Your task to perform on an android device: install app "Pluto TV - Live TV and Movies" Image 0: 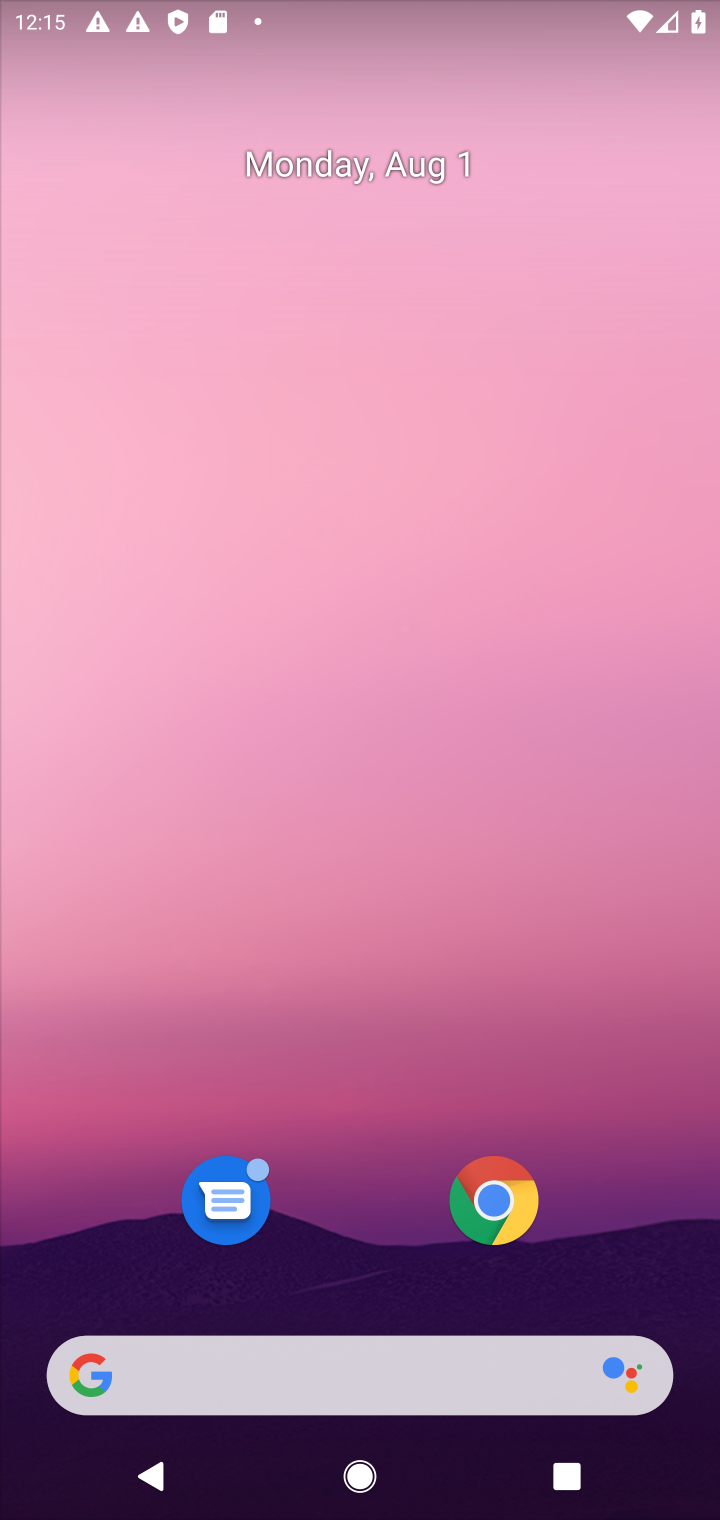
Step 0: drag from (363, 267) to (371, 43)
Your task to perform on an android device: install app "Pluto TV - Live TV and Movies" Image 1: 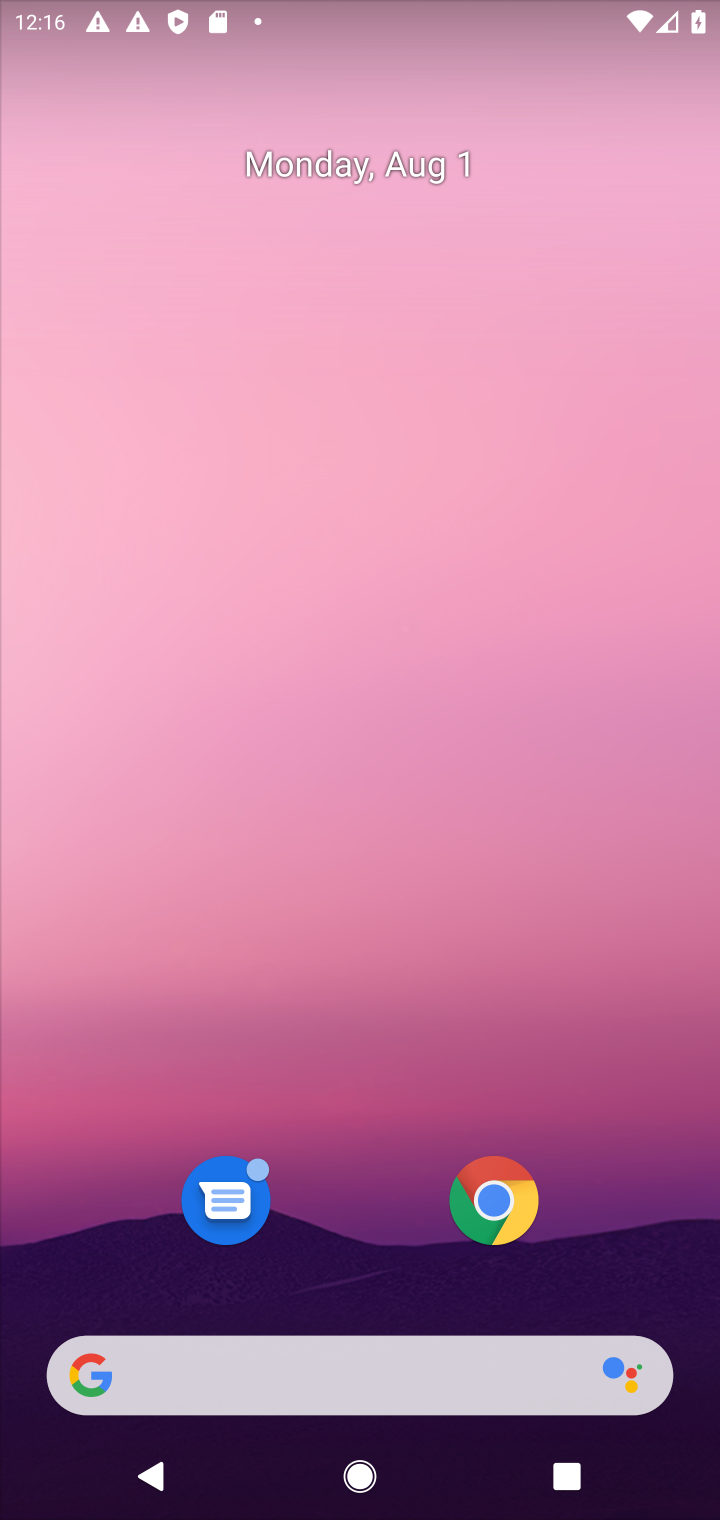
Step 1: drag from (625, 1306) to (384, 23)
Your task to perform on an android device: install app "Pluto TV - Live TV and Movies" Image 2: 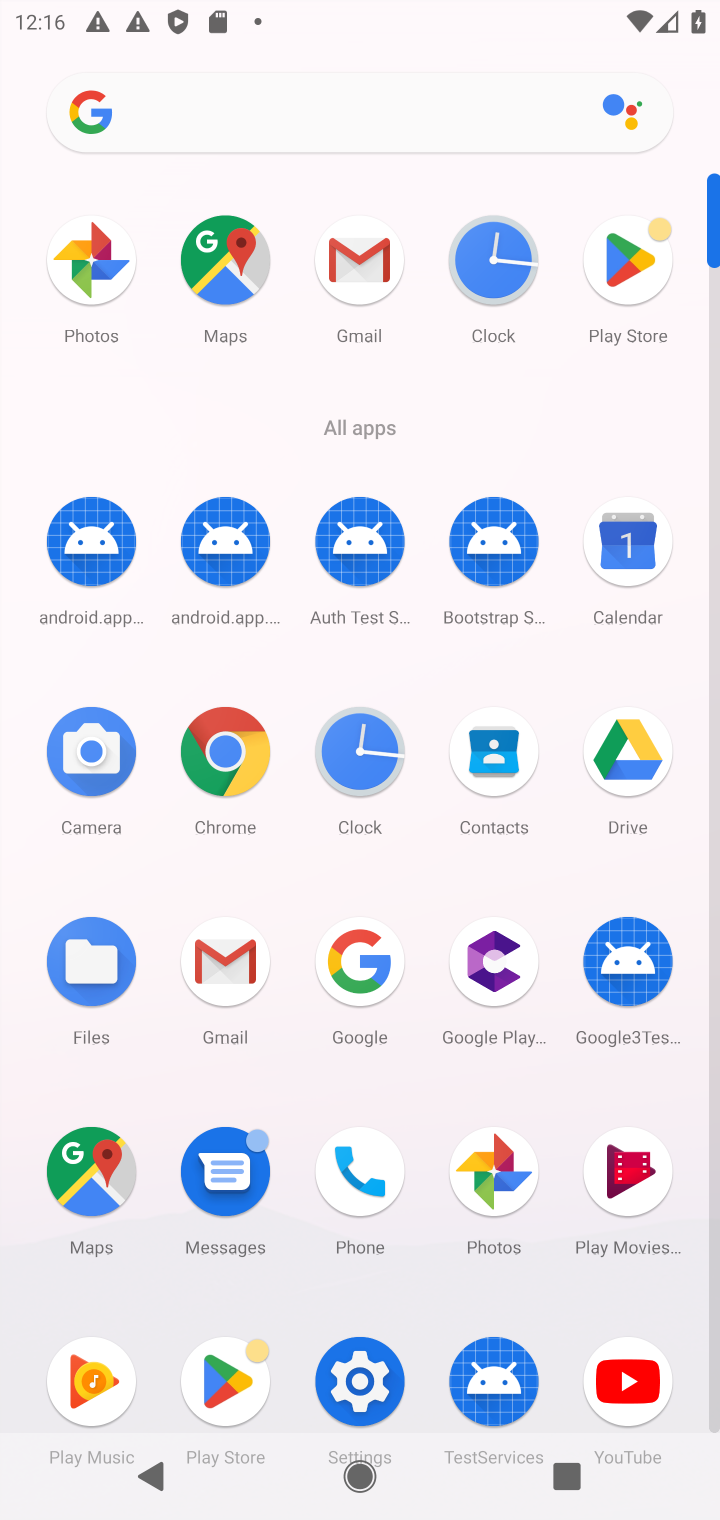
Step 2: click (225, 1391)
Your task to perform on an android device: install app "Pluto TV - Live TV and Movies" Image 3: 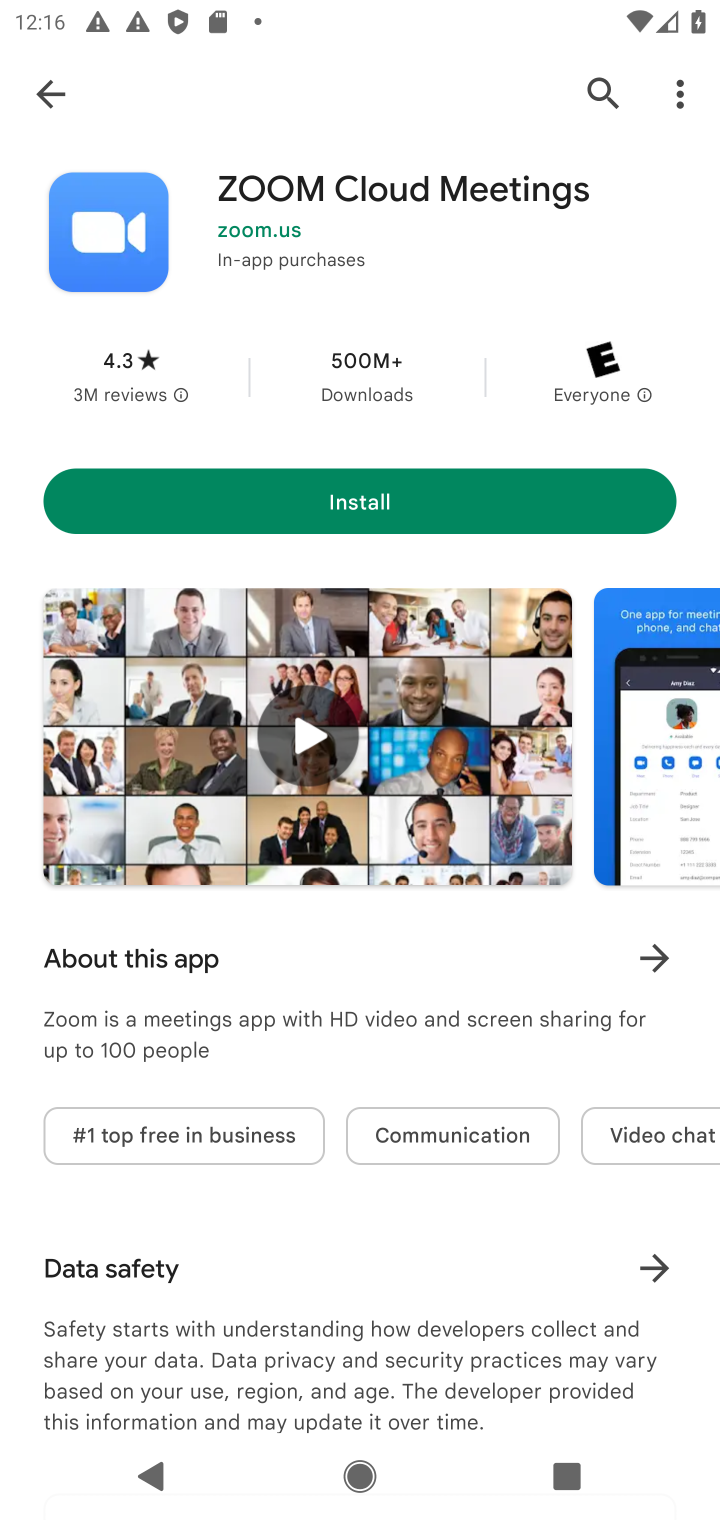
Step 3: click (599, 91)
Your task to perform on an android device: install app "Pluto TV - Live TV and Movies" Image 4: 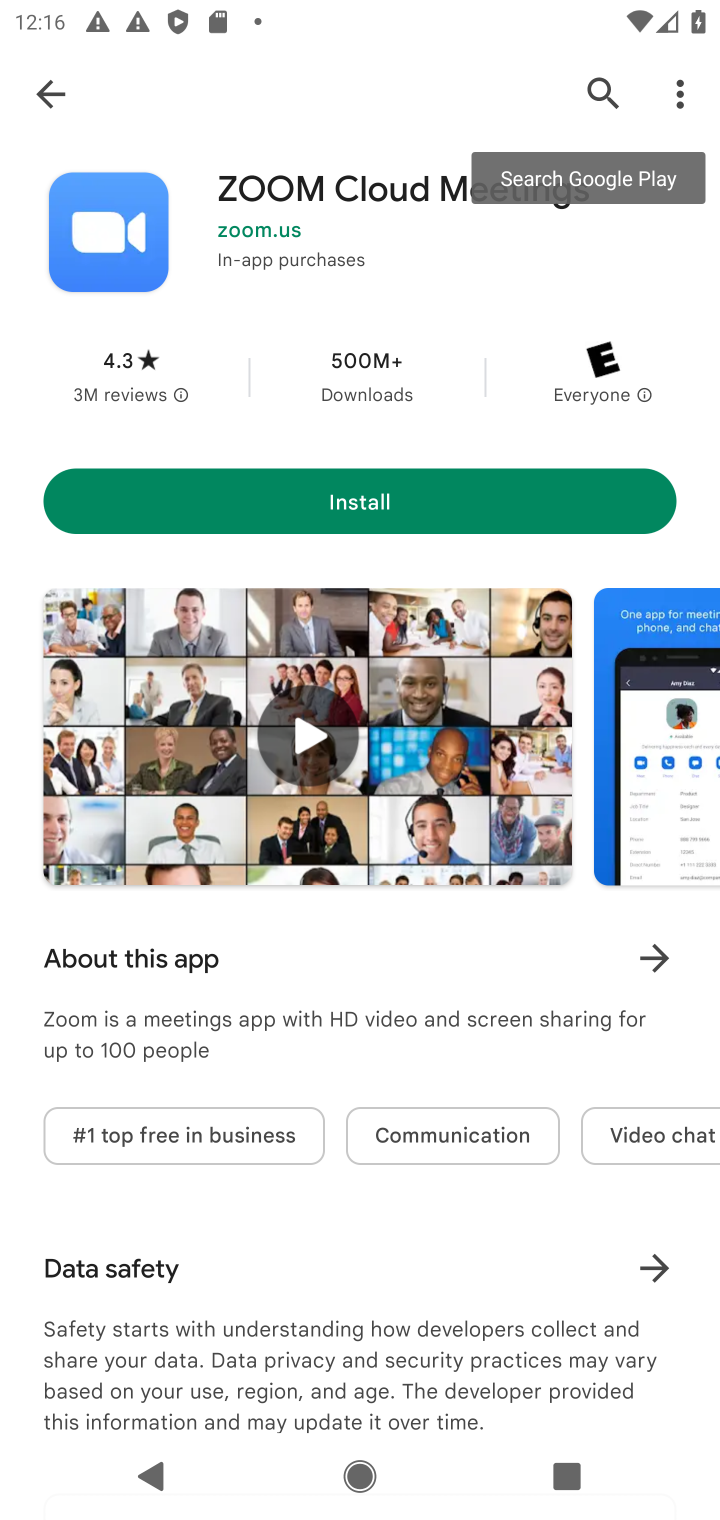
Step 4: click (585, 108)
Your task to perform on an android device: install app "Pluto TV - Live TV and Movies" Image 5: 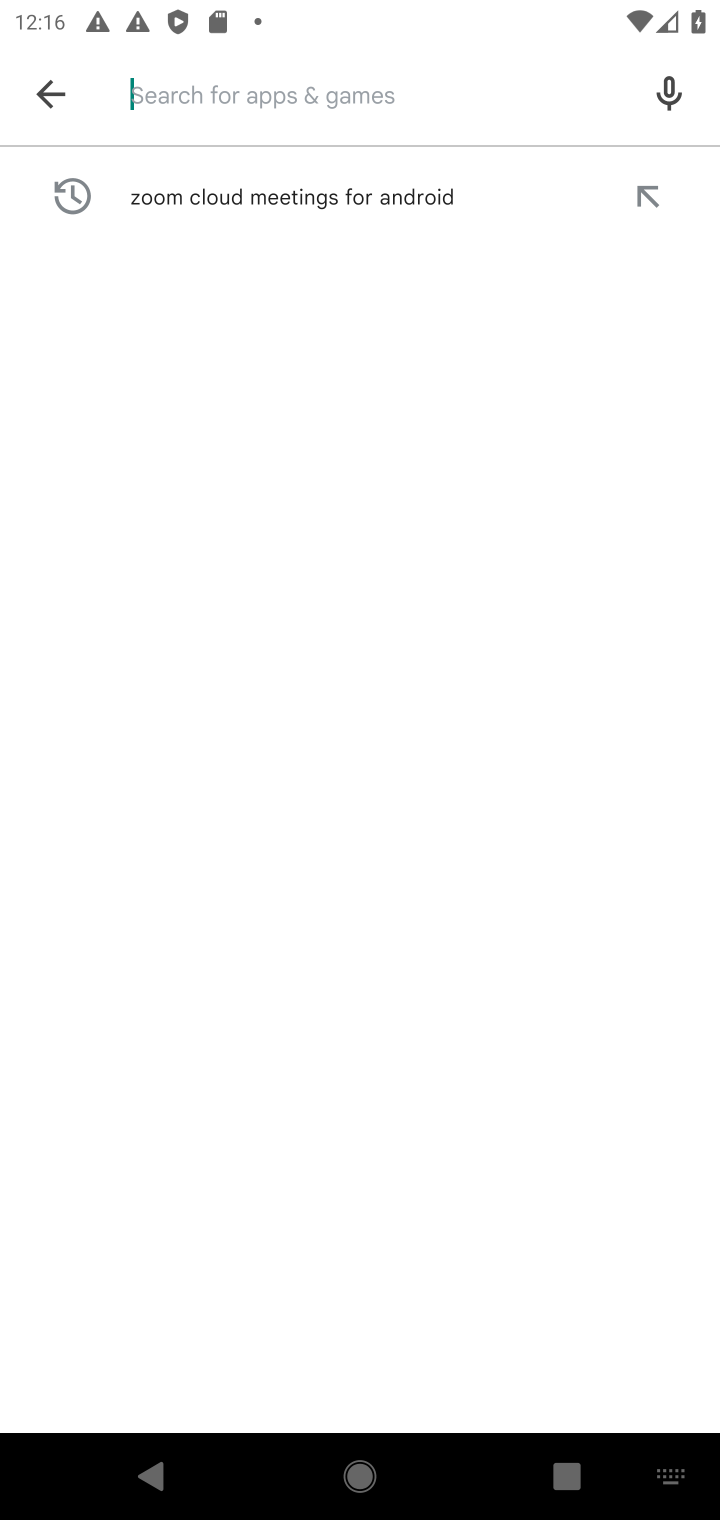
Step 5: type "pluto tv - live and movies"
Your task to perform on an android device: install app "Pluto TV - Live TV and Movies" Image 6: 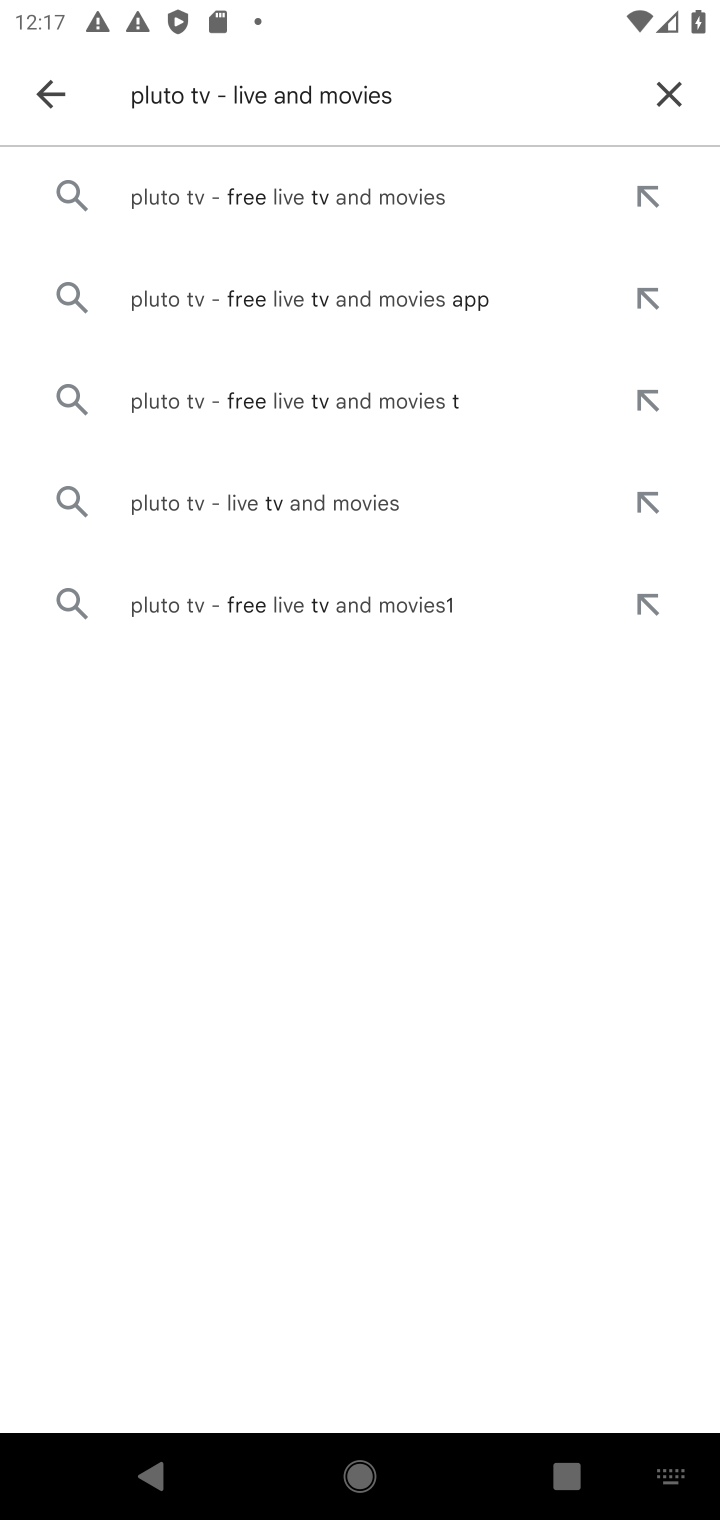
Step 6: click (413, 494)
Your task to perform on an android device: install app "Pluto TV - Live TV and Movies" Image 7: 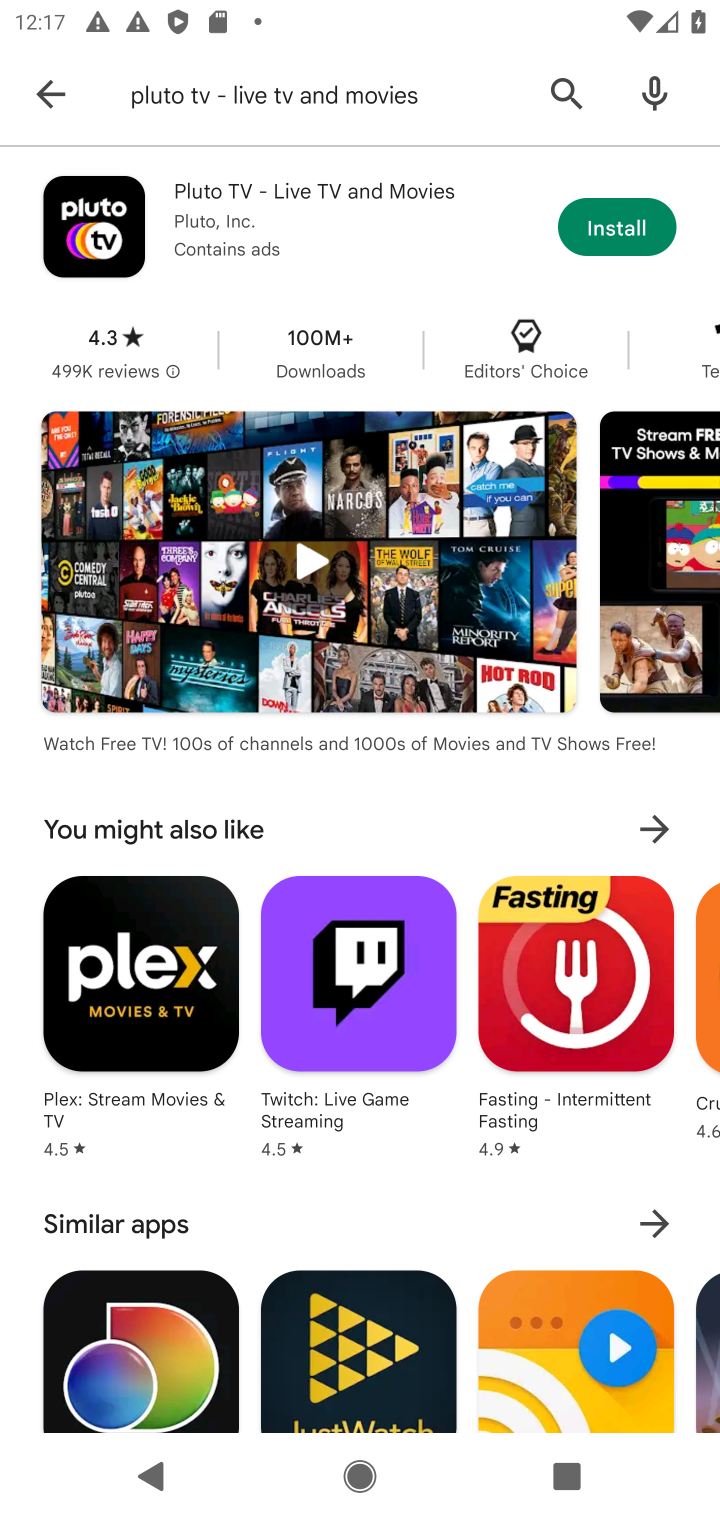
Step 7: click (210, 174)
Your task to perform on an android device: install app "Pluto TV - Live TV and Movies" Image 8: 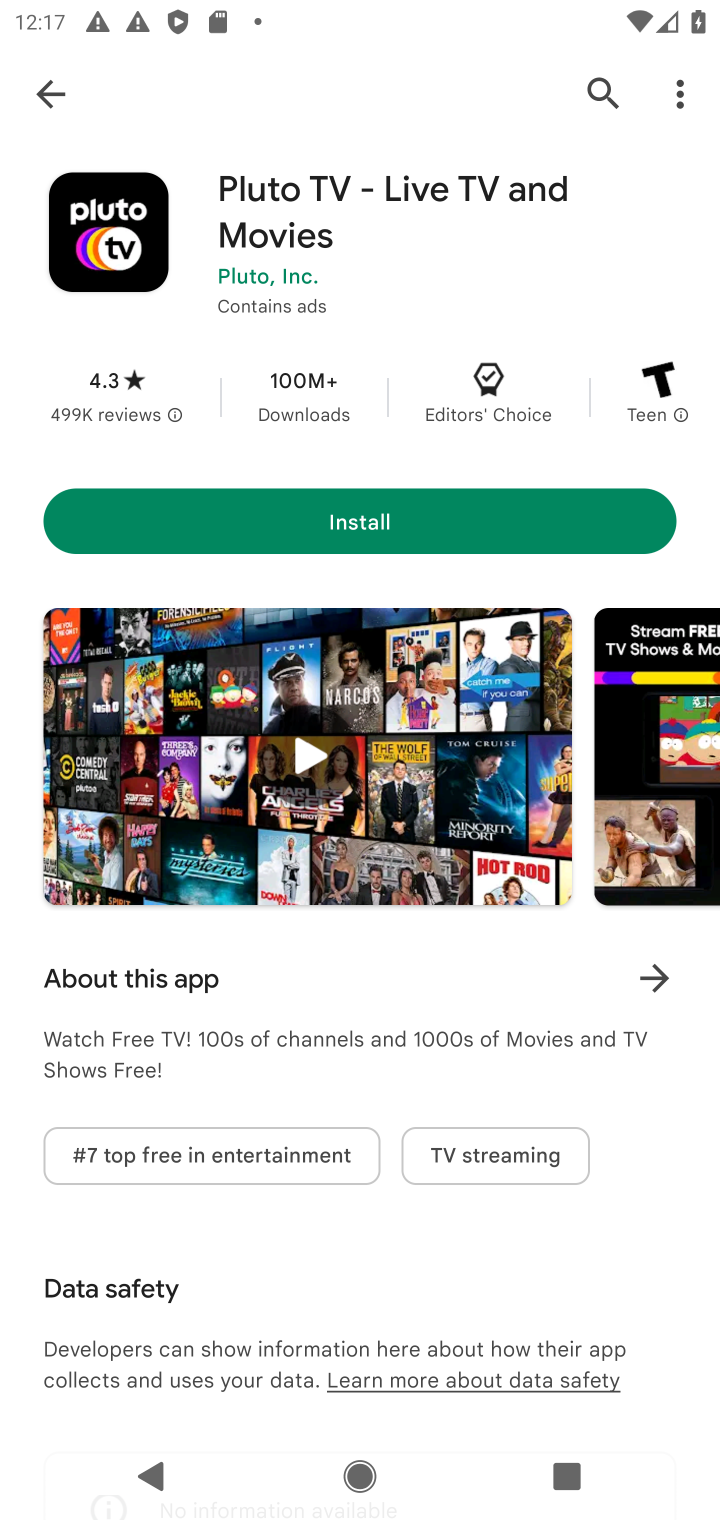
Step 8: click (276, 501)
Your task to perform on an android device: install app "Pluto TV - Live TV and Movies" Image 9: 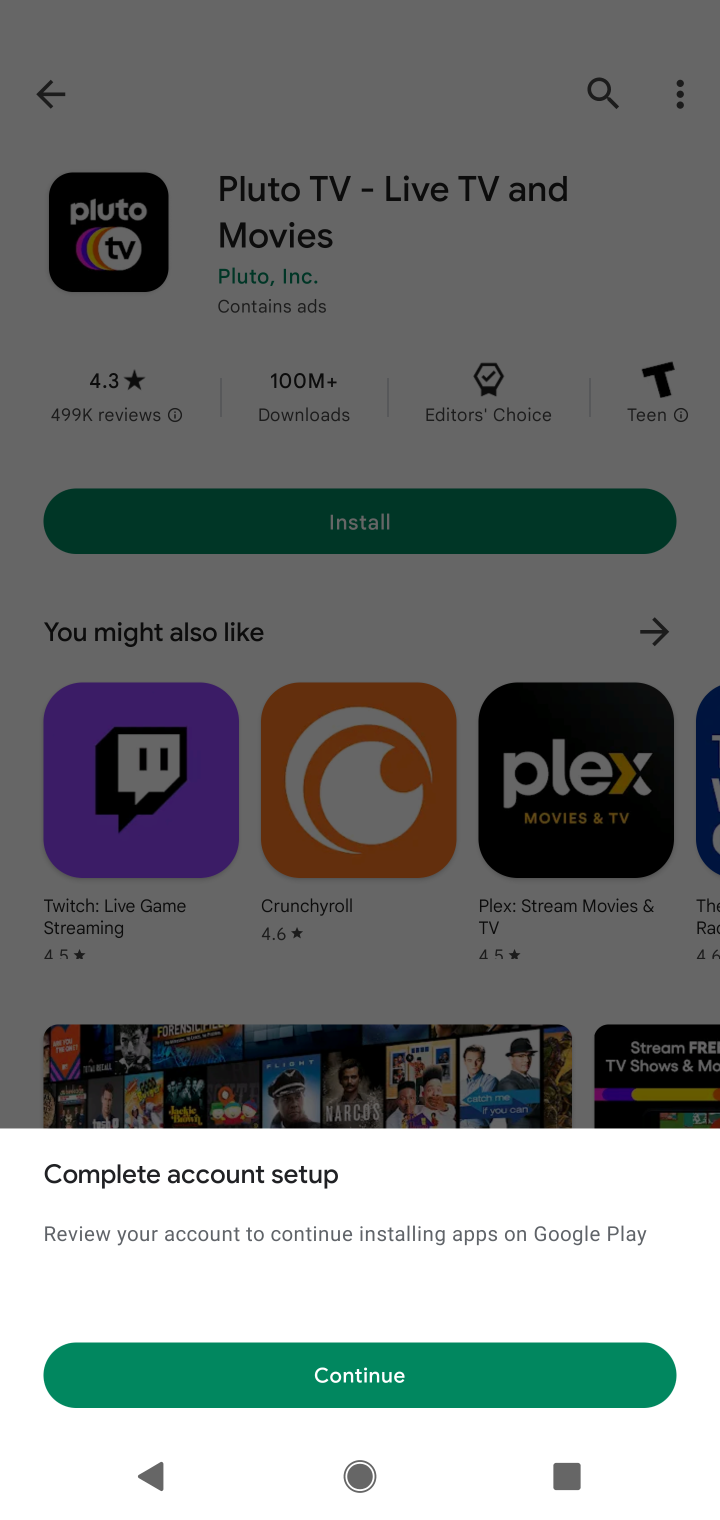
Step 9: click (410, 1379)
Your task to perform on an android device: install app "Pluto TV - Live TV and Movies" Image 10: 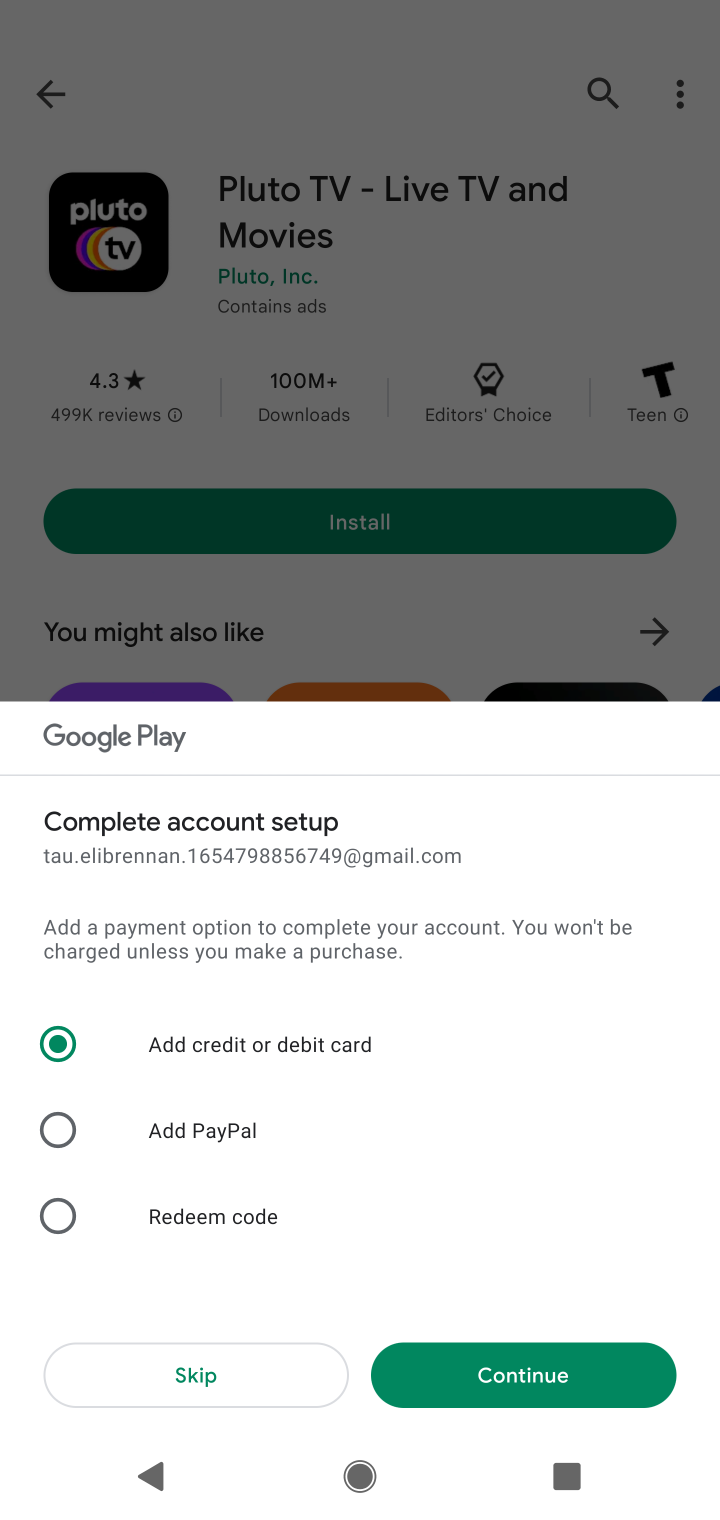
Step 10: click (181, 1379)
Your task to perform on an android device: install app "Pluto TV - Live TV and Movies" Image 11: 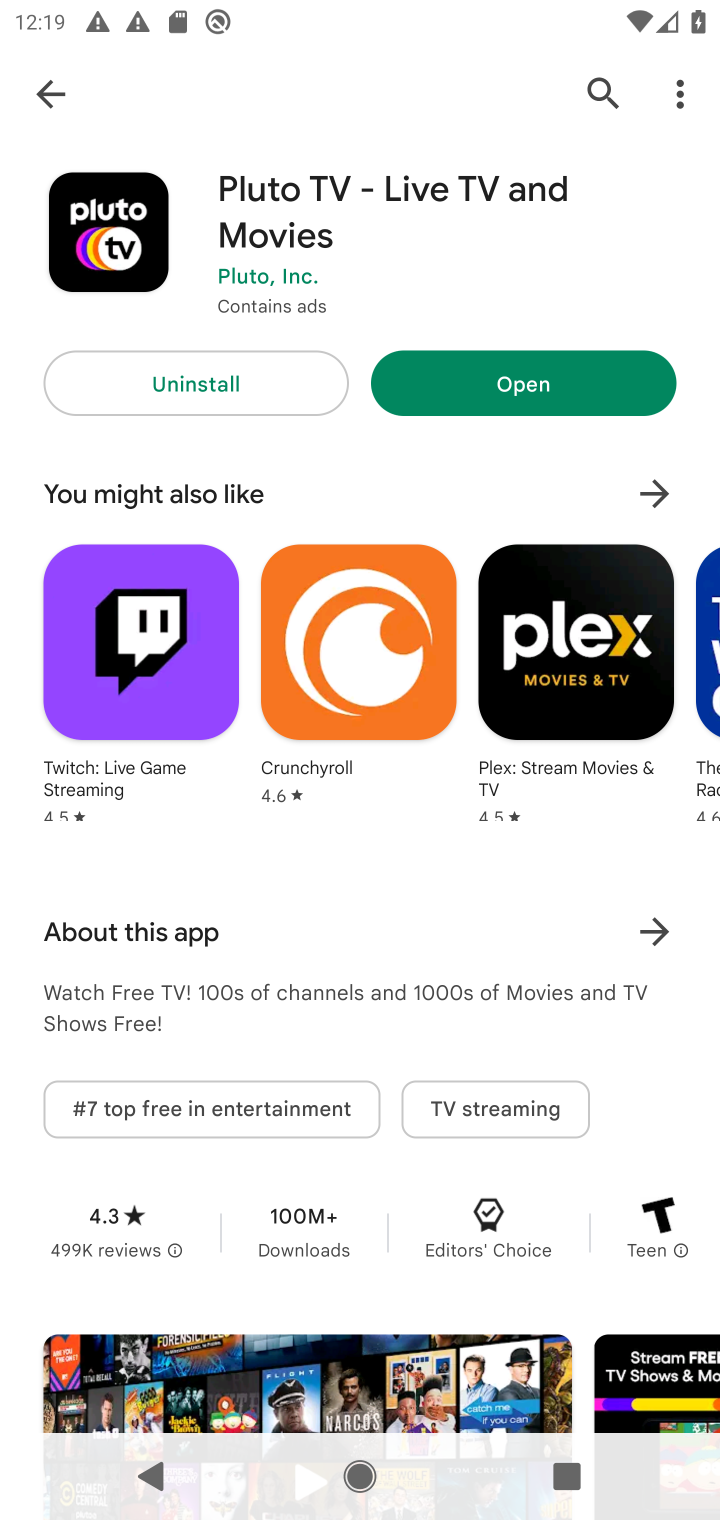
Step 11: task complete